Your task to perform on an android device: refresh tabs in the chrome app Image 0: 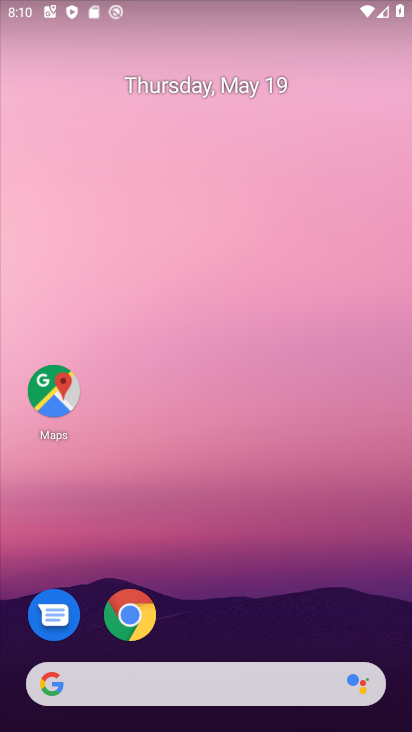
Step 0: click (139, 613)
Your task to perform on an android device: refresh tabs in the chrome app Image 1: 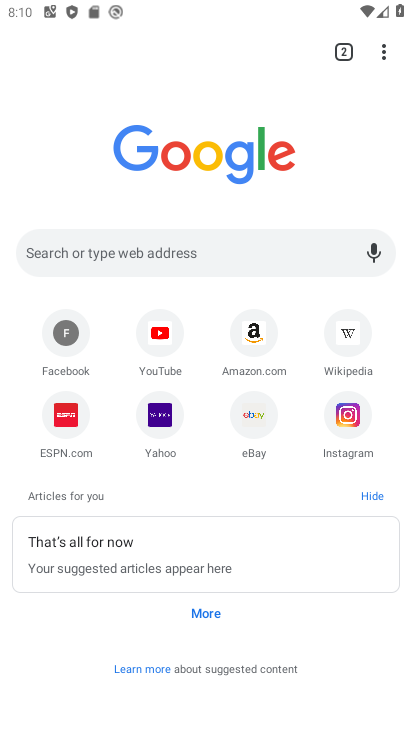
Step 1: click (375, 57)
Your task to perform on an android device: refresh tabs in the chrome app Image 2: 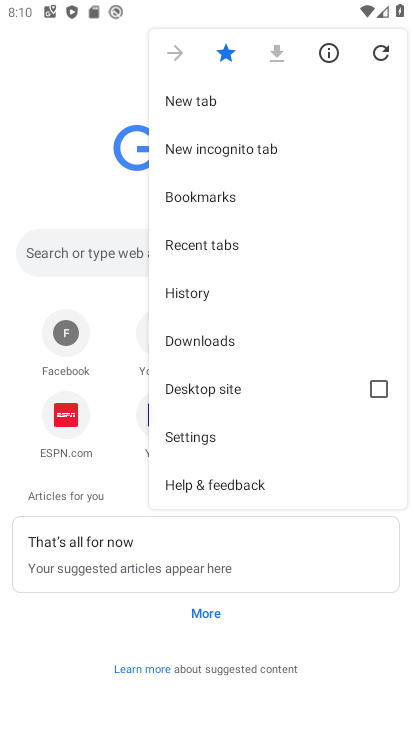
Step 2: click (380, 51)
Your task to perform on an android device: refresh tabs in the chrome app Image 3: 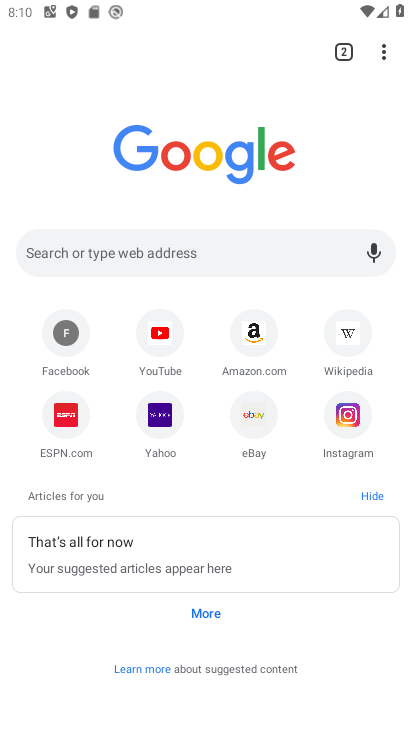
Step 3: task complete